Your task to perform on an android device: Open calendar and show me the third week of next month Image 0: 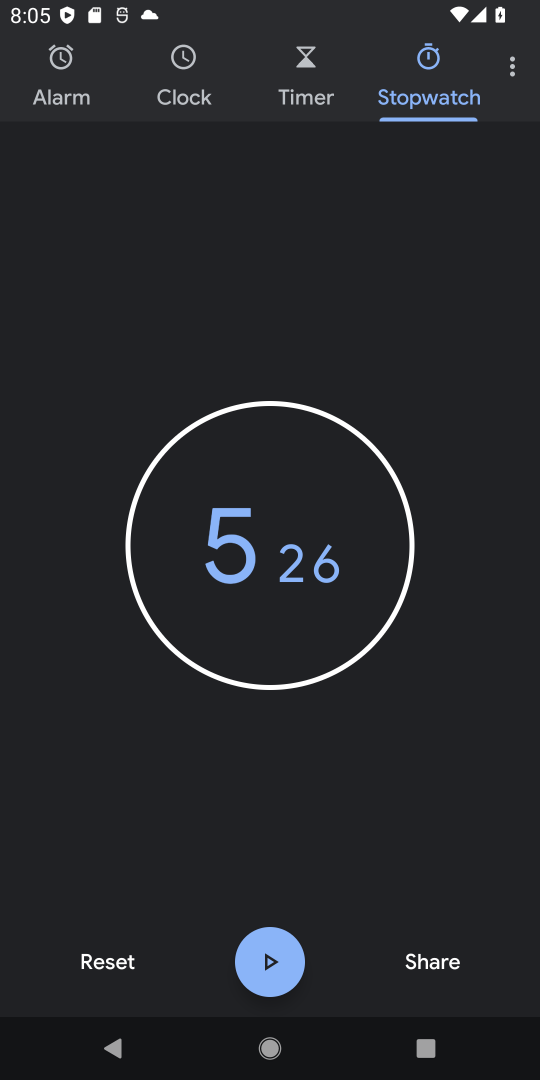
Step 0: press home button
Your task to perform on an android device: Open calendar and show me the third week of next month Image 1: 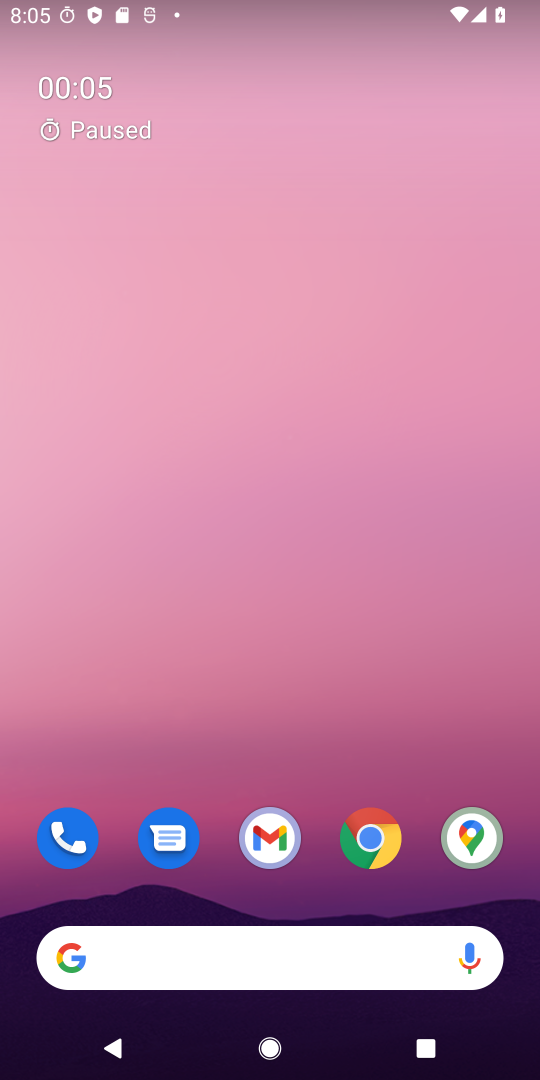
Step 1: drag from (219, 559) to (189, 282)
Your task to perform on an android device: Open calendar and show me the third week of next month Image 2: 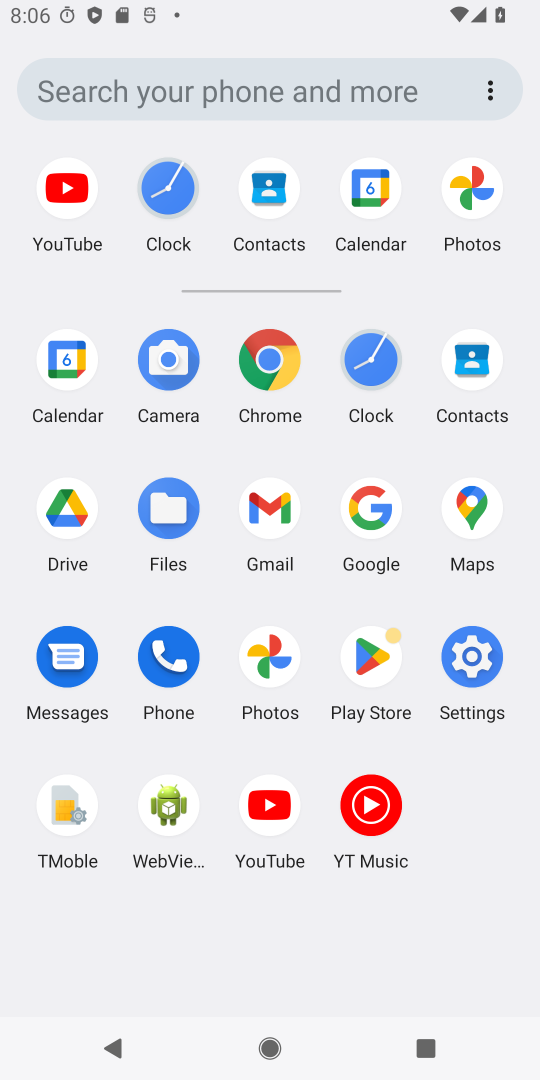
Step 2: click (61, 412)
Your task to perform on an android device: Open calendar and show me the third week of next month Image 3: 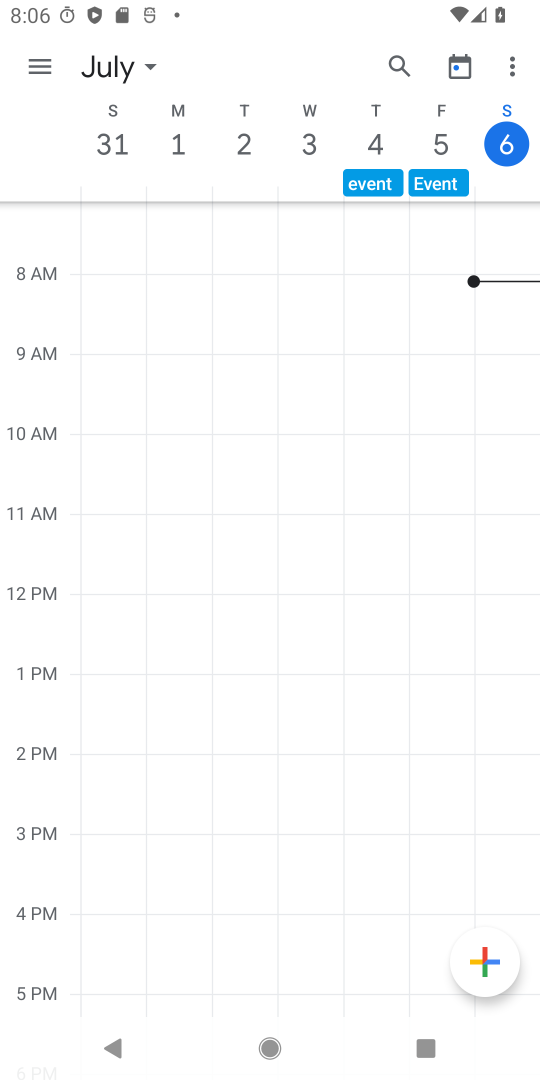
Step 3: click (118, 63)
Your task to perform on an android device: Open calendar and show me the third week of next month Image 4: 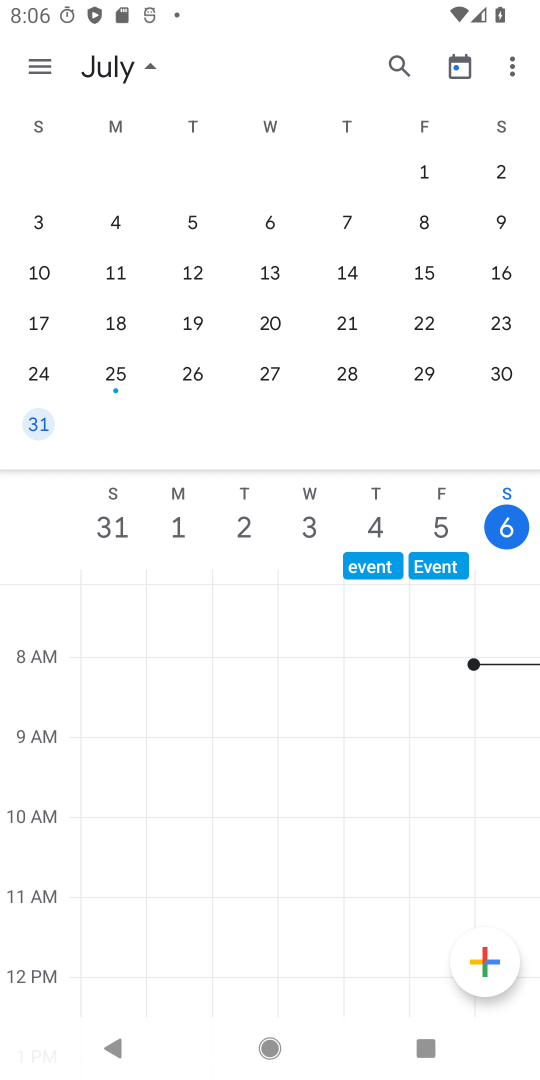
Step 4: drag from (389, 211) to (19, 249)
Your task to perform on an android device: Open calendar and show me the third week of next month Image 5: 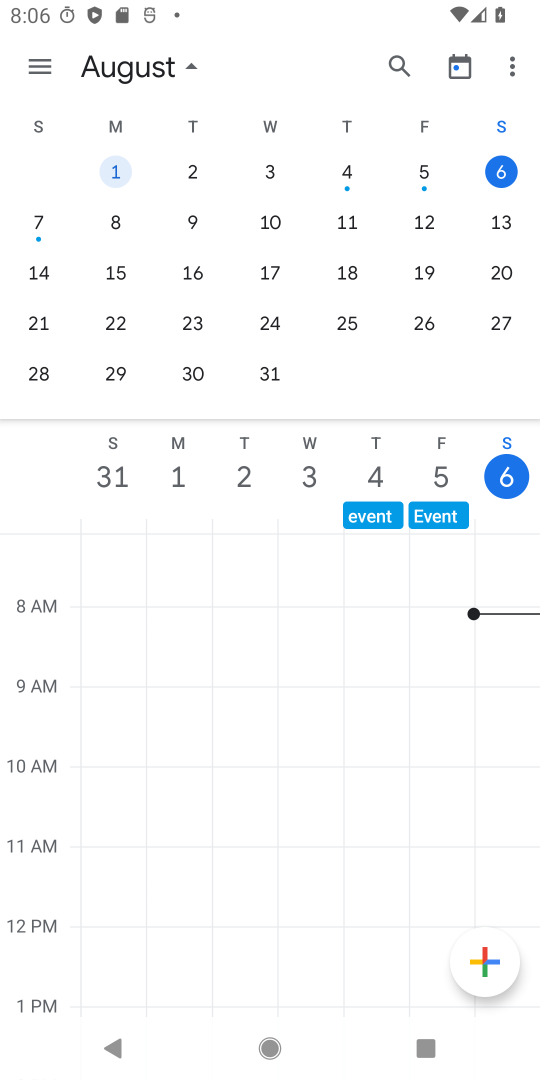
Step 5: drag from (440, 245) to (150, 253)
Your task to perform on an android device: Open calendar and show me the third week of next month Image 6: 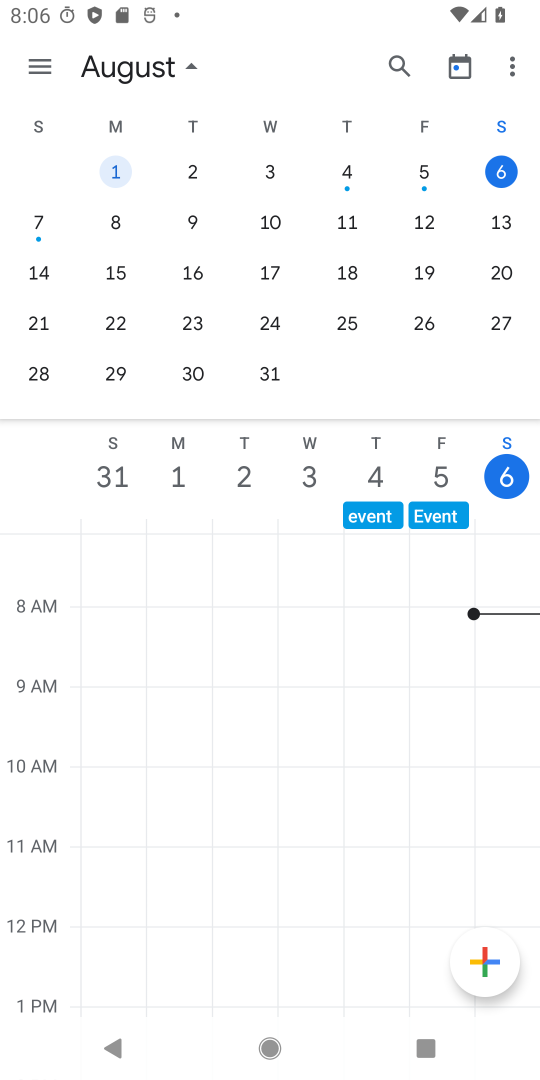
Step 6: drag from (331, 281) to (110, 166)
Your task to perform on an android device: Open calendar and show me the third week of next month Image 7: 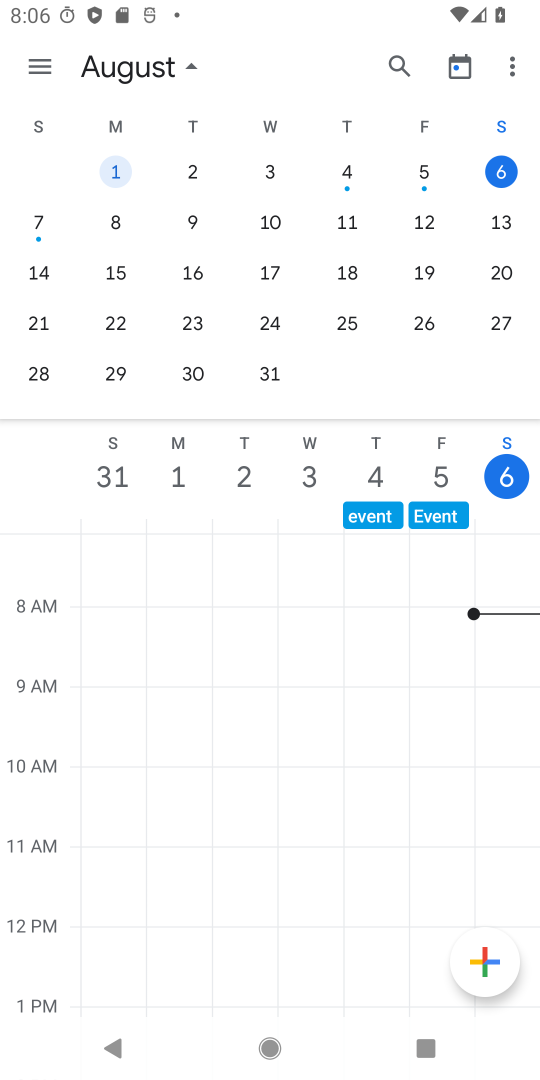
Step 7: drag from (442, 251) to (14, 309)
Your task to perform on an android device: Open calendar and show me the third week of next month Image 8: 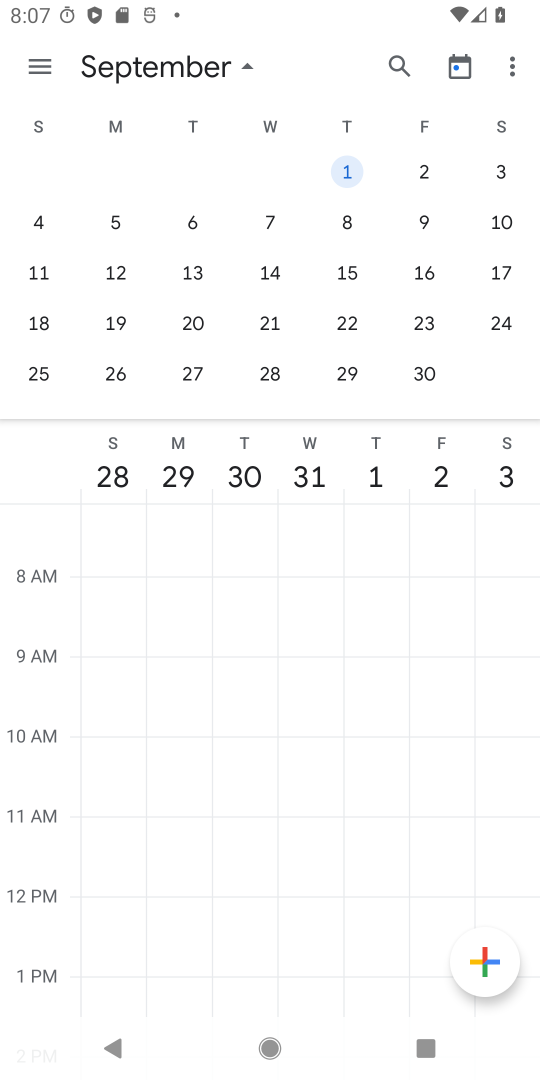
Step 8: click (44, 278)
Your task to perform on an android device: Open calendar and show me the third week of next month Image 9: 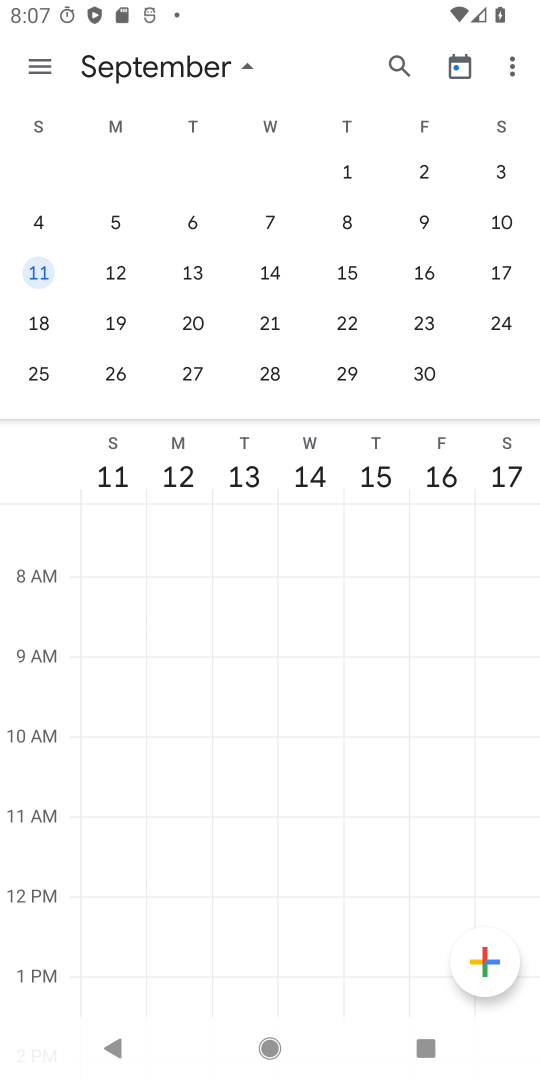
Step 9: task complete